Your task to perform on an android device: Do I have any events this weekend? Image 0: 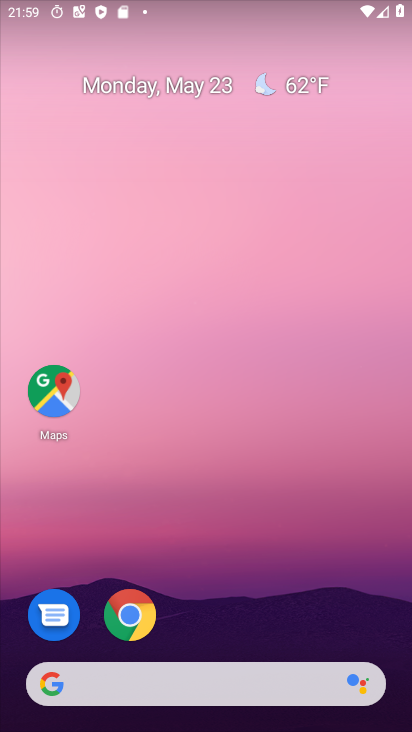
Step 0: drag from (246, 606) to (229, 136)
Your task to perform on an android device: Do I have any events this weekend? Image 1: 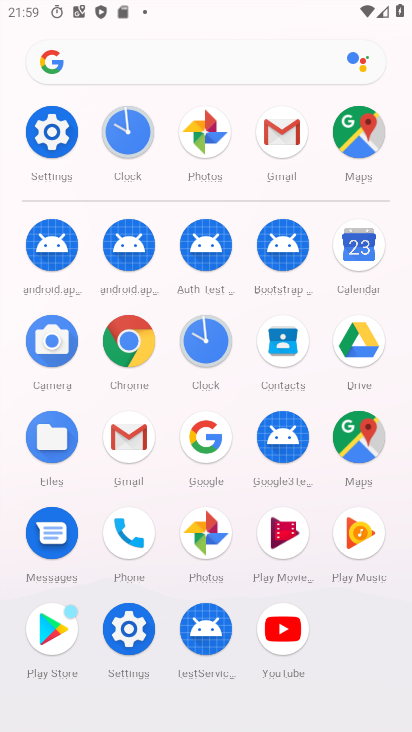
Step 1: click (354, 245)
Your task to perform on an android device: Do I have any events this weekend? Image 2: 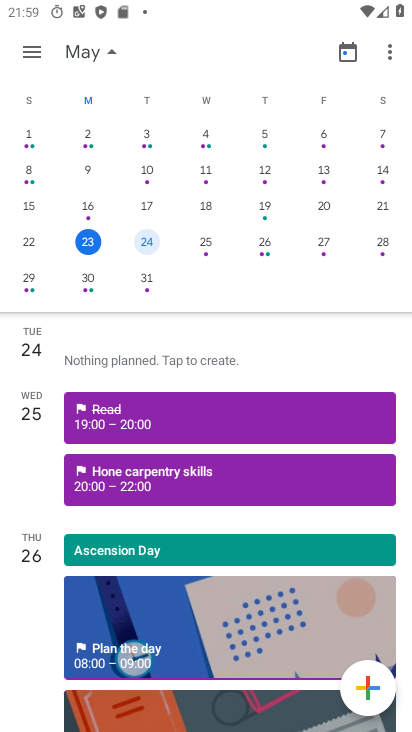
Step 2: click (211, 242)
Your task to perform on an android device: Do I have any events this weekend? Image 3: 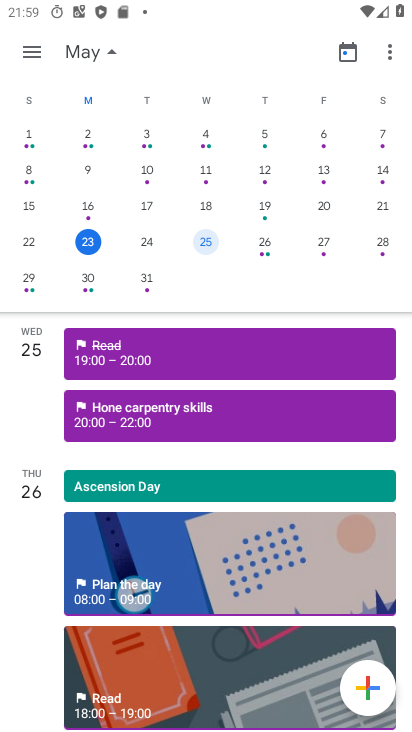
Step 3: task complete